Your task to perform on an android device: Open calendar and show me the first week of next month Image 0: 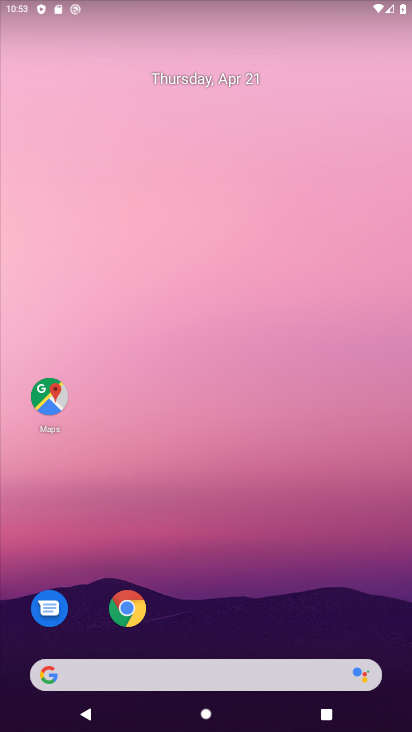
Step 0: drag from (250, 572) to (208, 164)
Your task to perform on an android device: Open calendar and show me the first week of next month Image 1: 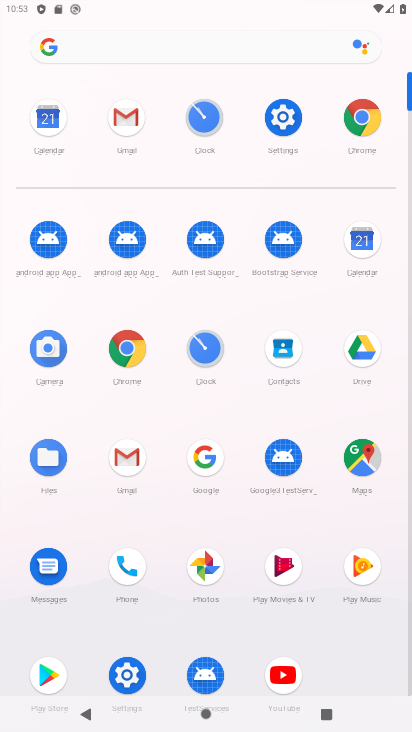
Step 1: click (45, 118)
Your task to perform on an android device: Open calendar and show me the first week of next month Image 2: 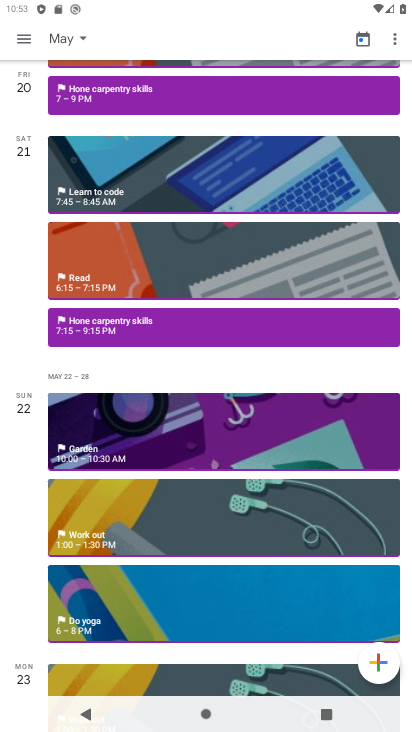
Step 2: click (68, 40)
Your task to perform on an android device: Open calendar and show me the first week of next month Image 3: 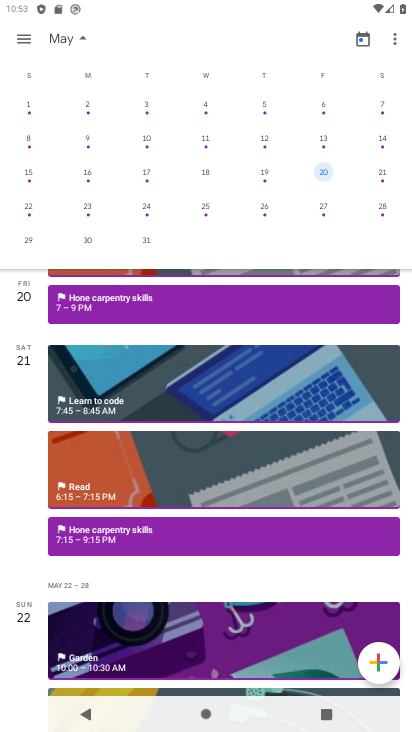
Step 3: click (30, 107)
Your task to perform on an android device: Open calendar and show me the first week of next month Image 4: 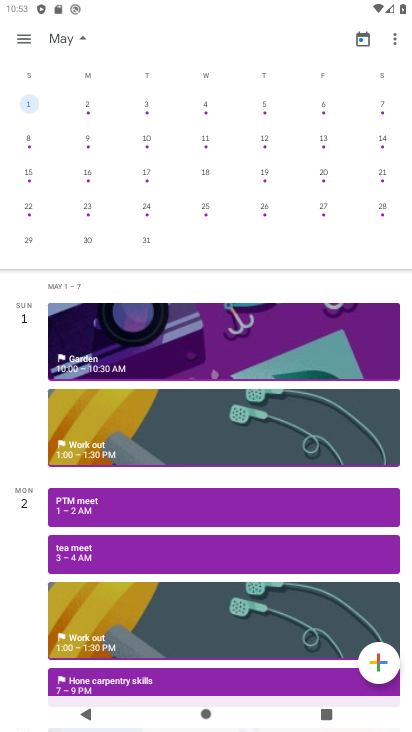
Step 4: click (30, 38)
Your task to perform on an android device: Open calendar and show me the first week of next month Image 5: 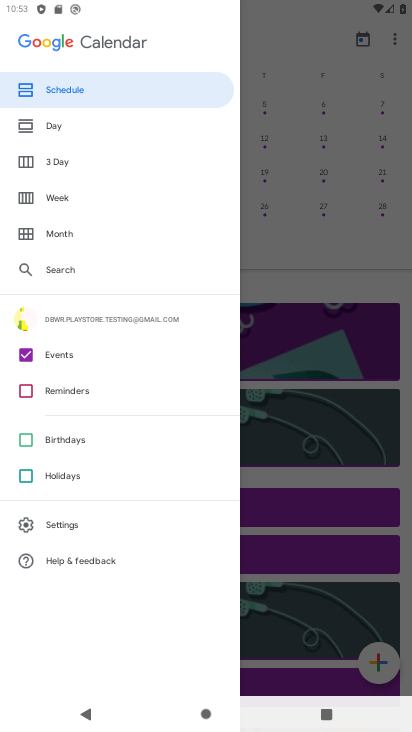
Step 5: click (45, 195)
Your task to perform on an android device: Open calendar and show me the first week of next month Image 6: 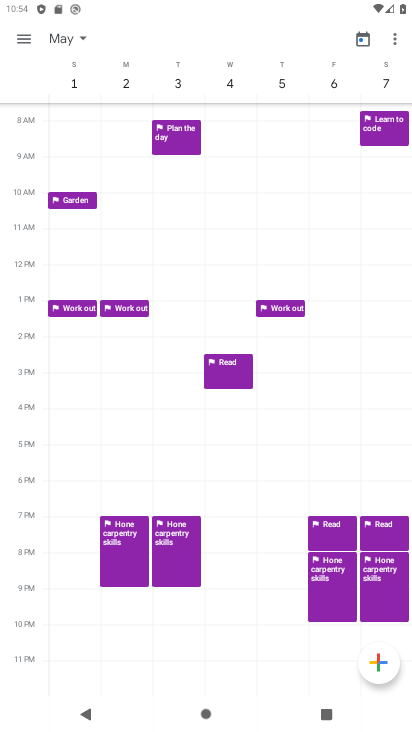
Step 6: task complete